Your task to perform on an android device: Set the phone to "Do not disturb". Image 0: 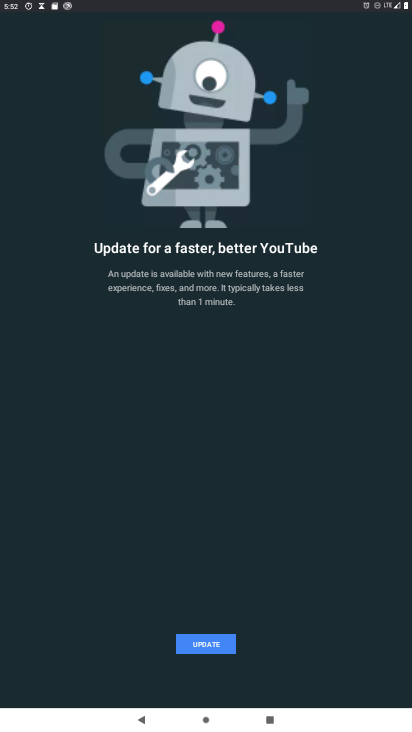
Step 0: press home button
Your task to perform on an android device: Set the phone to "Do not disturb". Image 1: 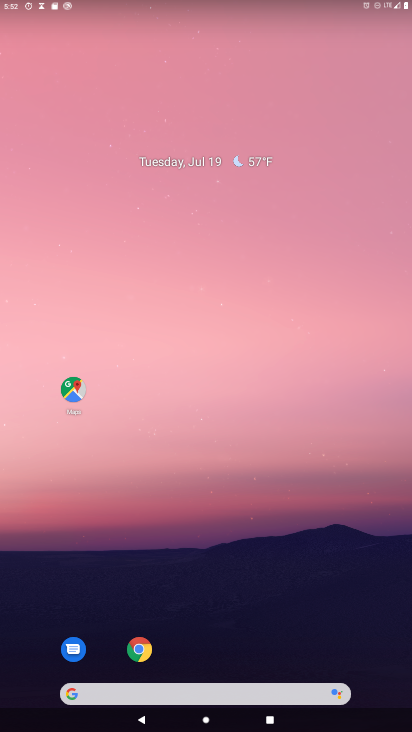
Step 1: drag from (189, 484) to (152, 79)
Your task to perform on an android device: Set the phone to "Do not disturb". Image 2: 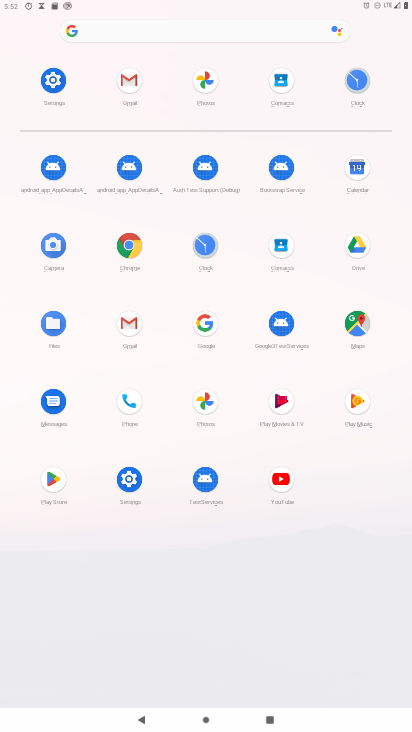
Step 2: click (127, 475)
Your task to perform on an android device: Set the phone to "Do not disturb". Image 3: 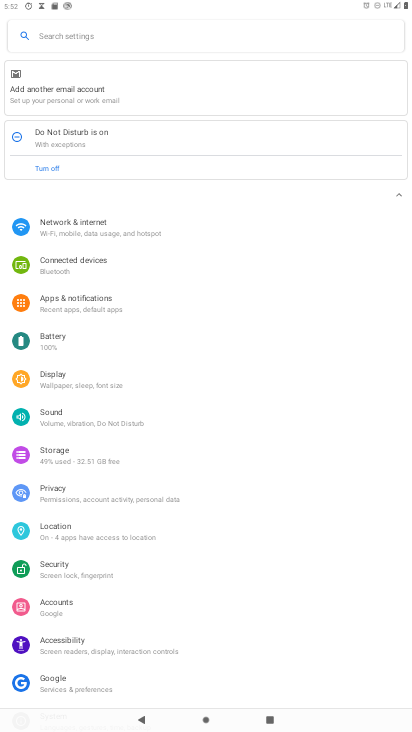
Step 3: click (38, 420)
Your task to perform on an android device: Set the phone to "Do not disturb". Image 4: 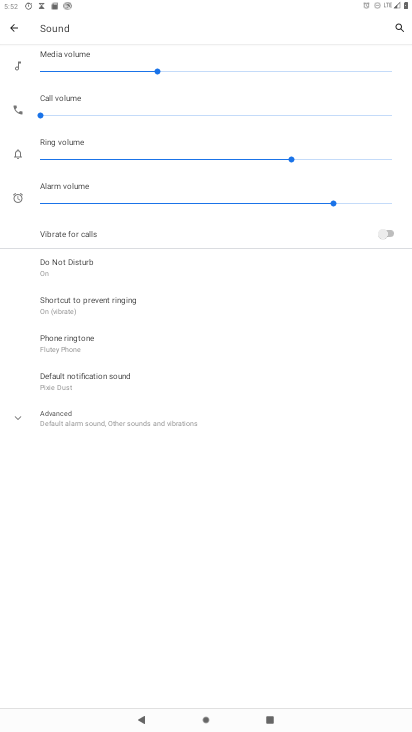
Step 4: click (102, 258)
Your task to perform on an android device: Set the phone to "Do not disturb". Image 5: 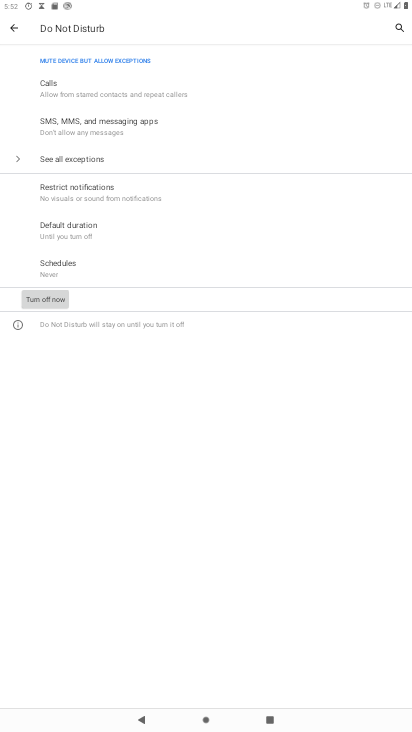
Step 5: task complete